Your task to perform on an android device: change the clock display to digital Image 0: 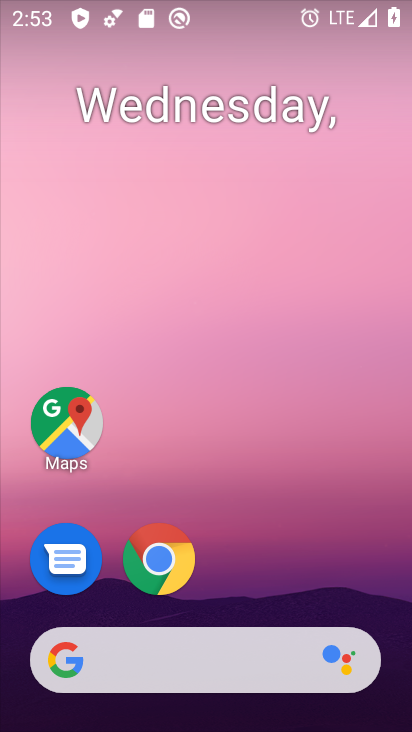
Step 0: drag from (292, 568) to (297, 1)
Your task to perform on an android device: change the clock display to digital Image 1: 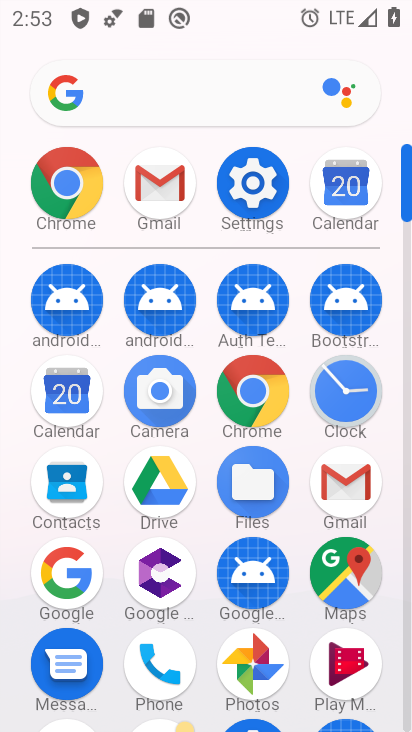
Step 1: click (335, 401)
Your task to perform on an android device: change the clock display to digital Image 2: 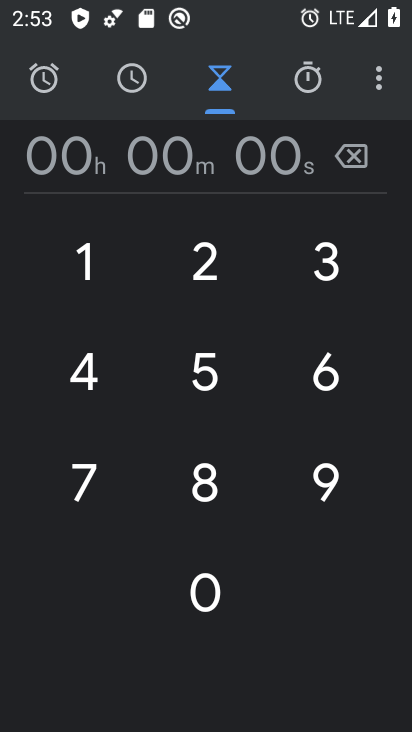
Step 2: click (349, 65)
Your task to perform on an android device: change the clock display to digital Image 3: 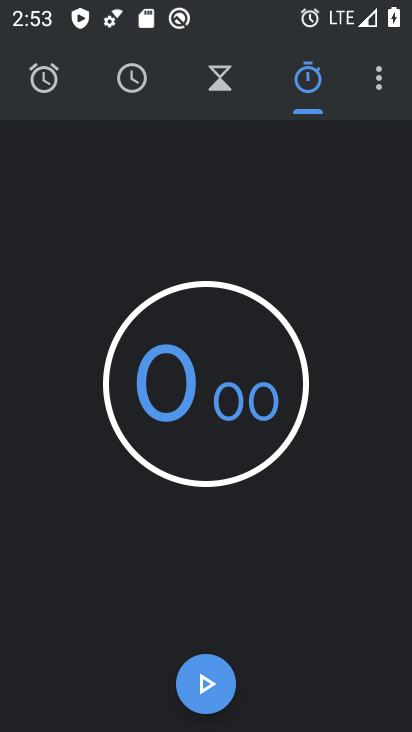
Step 3: click (381, 71)
Your task to perform on an android device: change the clock display to digital Image 4: 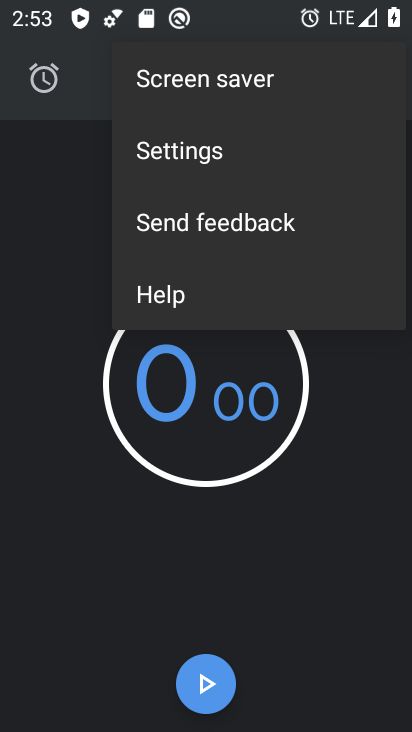
Step 4: click (196, 142)
Your task to perform on an android device: change the clock display to digital Image 5: 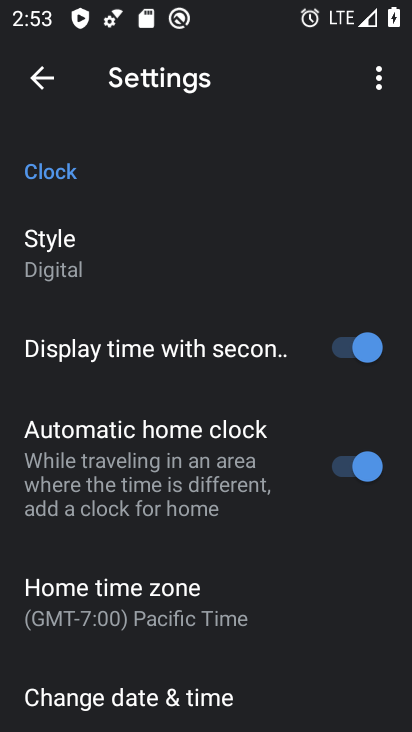
Step 5: task complete